Your task to perform on an android device: see sites visited before in the chrome app Image 0: 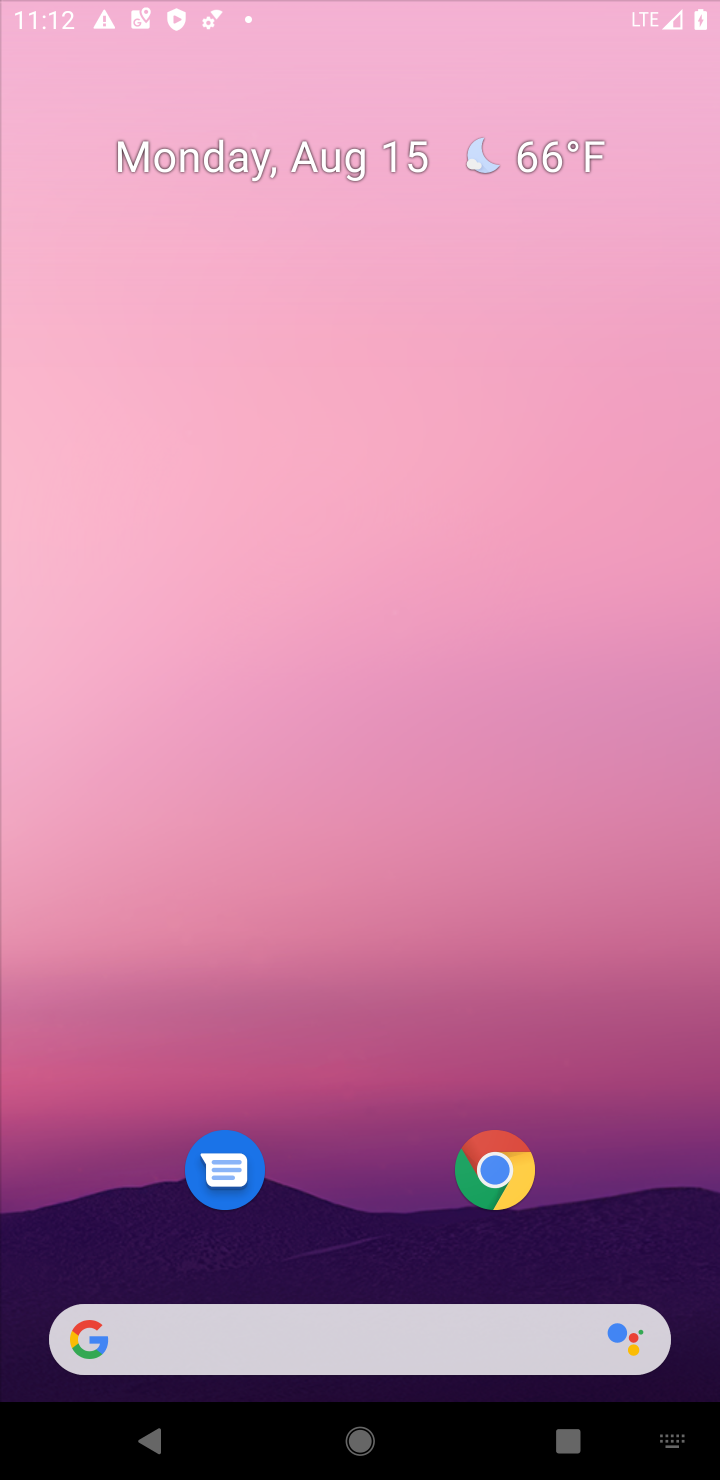
Step 0: press home button
Your task to perform on an android device: see sites visited before in the chrome app Image 1: 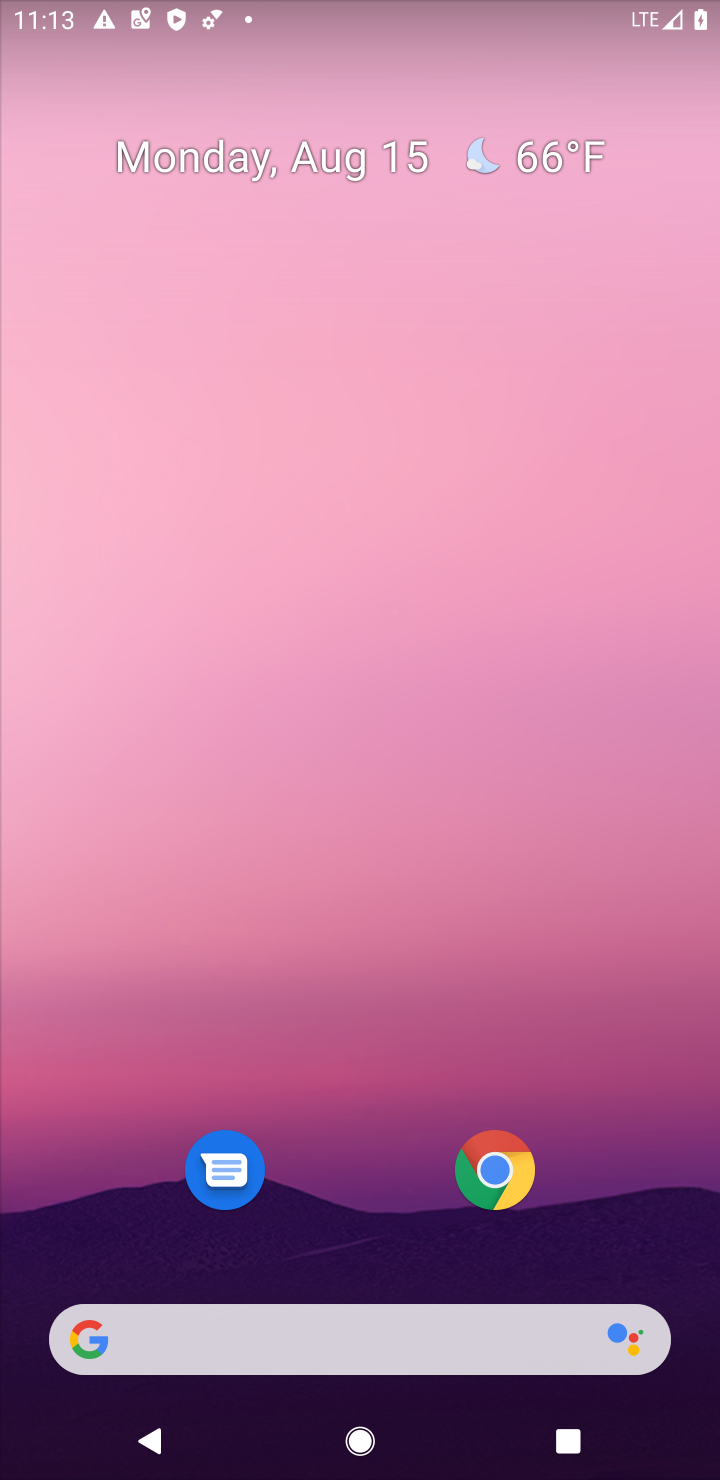
Step 1: drag from (396, 1265) to (549, 5)
Your task to perform on an android device: see sites visited before in the chrome app Image 2: 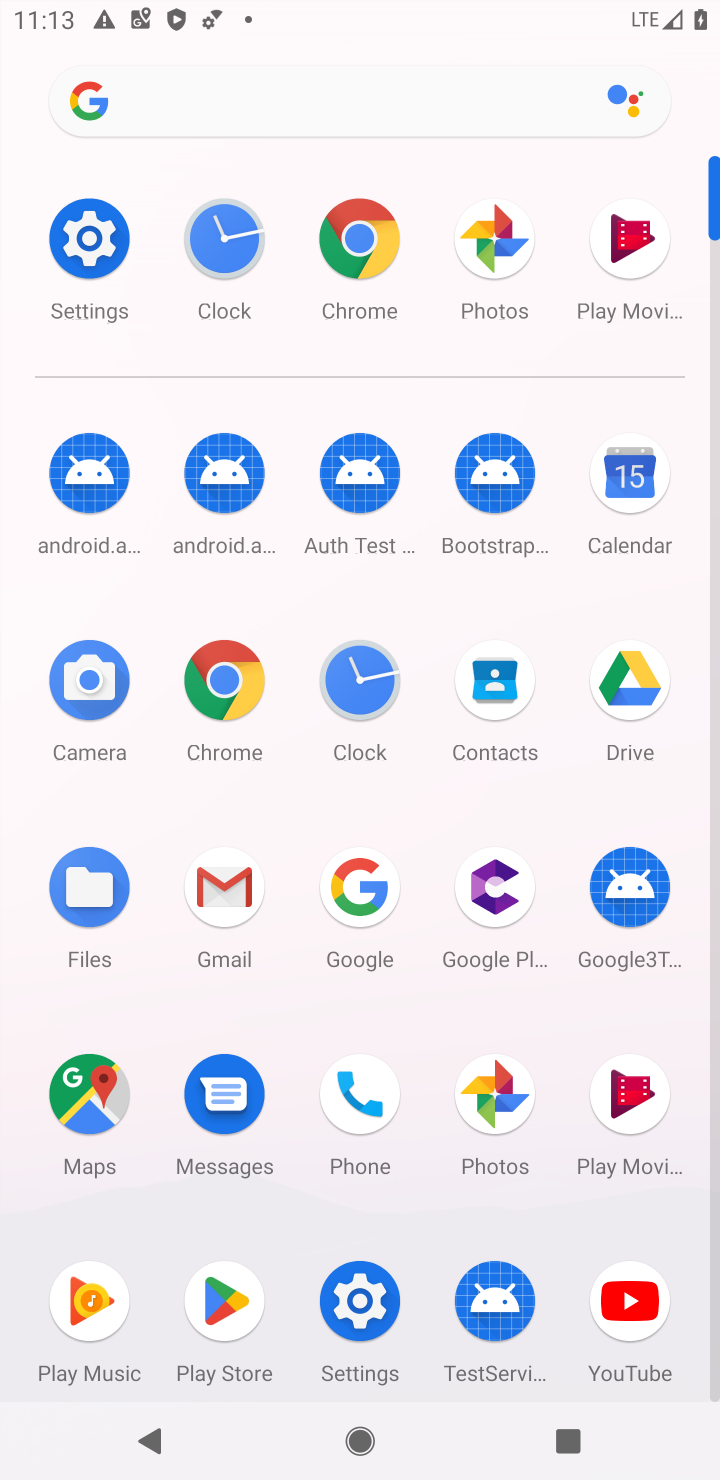
Step 2: click (354, 227)
Your task to perform on an android device: see sites visited before in the chrome app Image 3: 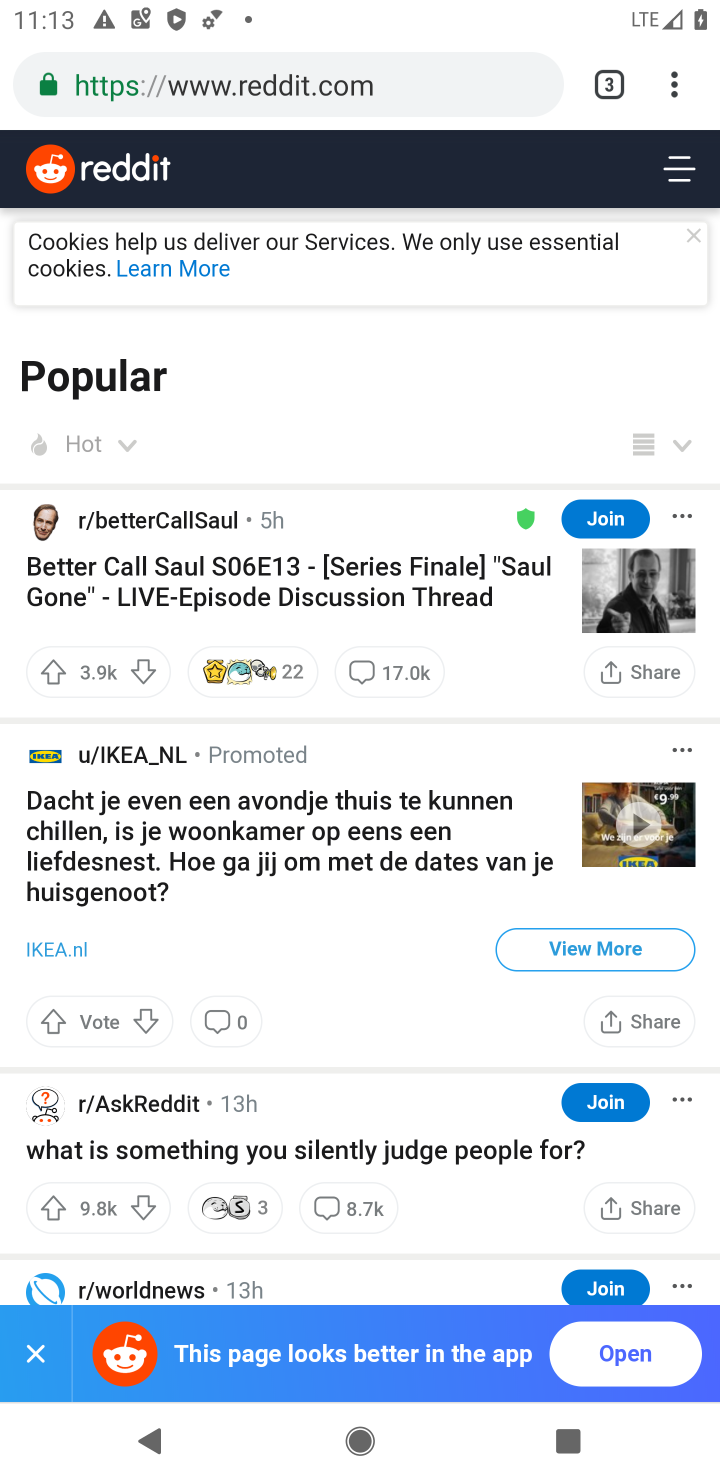
Step 3: click (683, 82)
Your task to perform on an android device: see sites visited before in the chrome app Image 4: 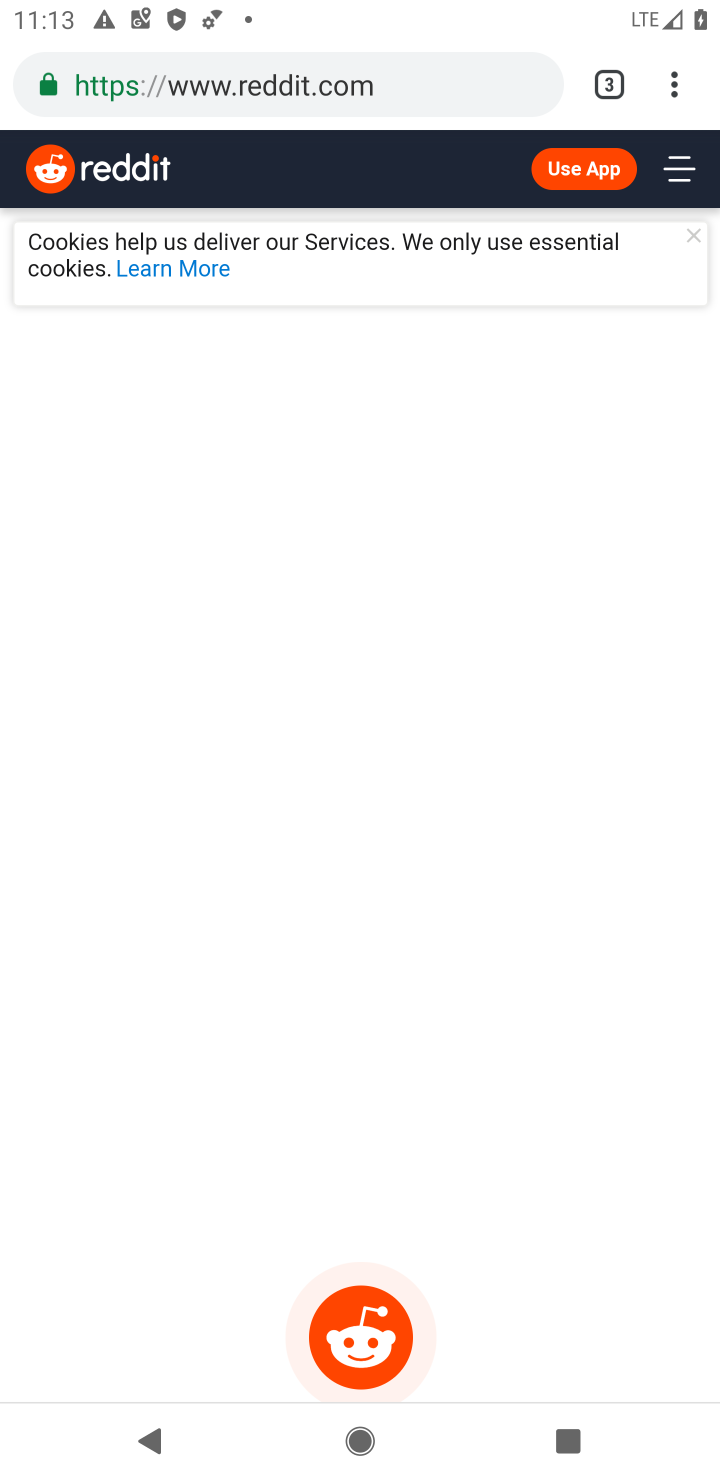
Step 4: click (670, 81)
Your task to perform on an android device: see sites visited before in the chrome app Image 5: 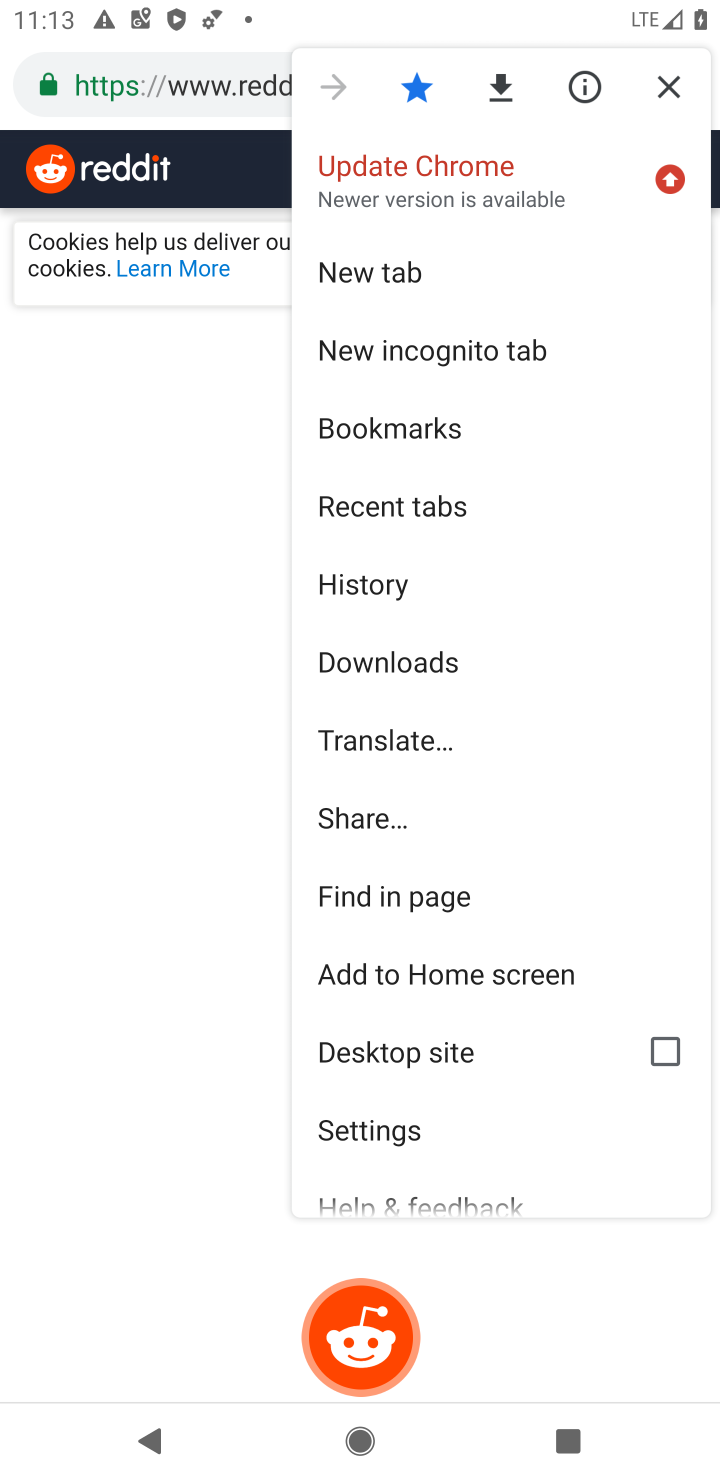
Step 5: click (414, 584)
Your task to perform on an android device: see sites visited before in the chrome app Image 6: 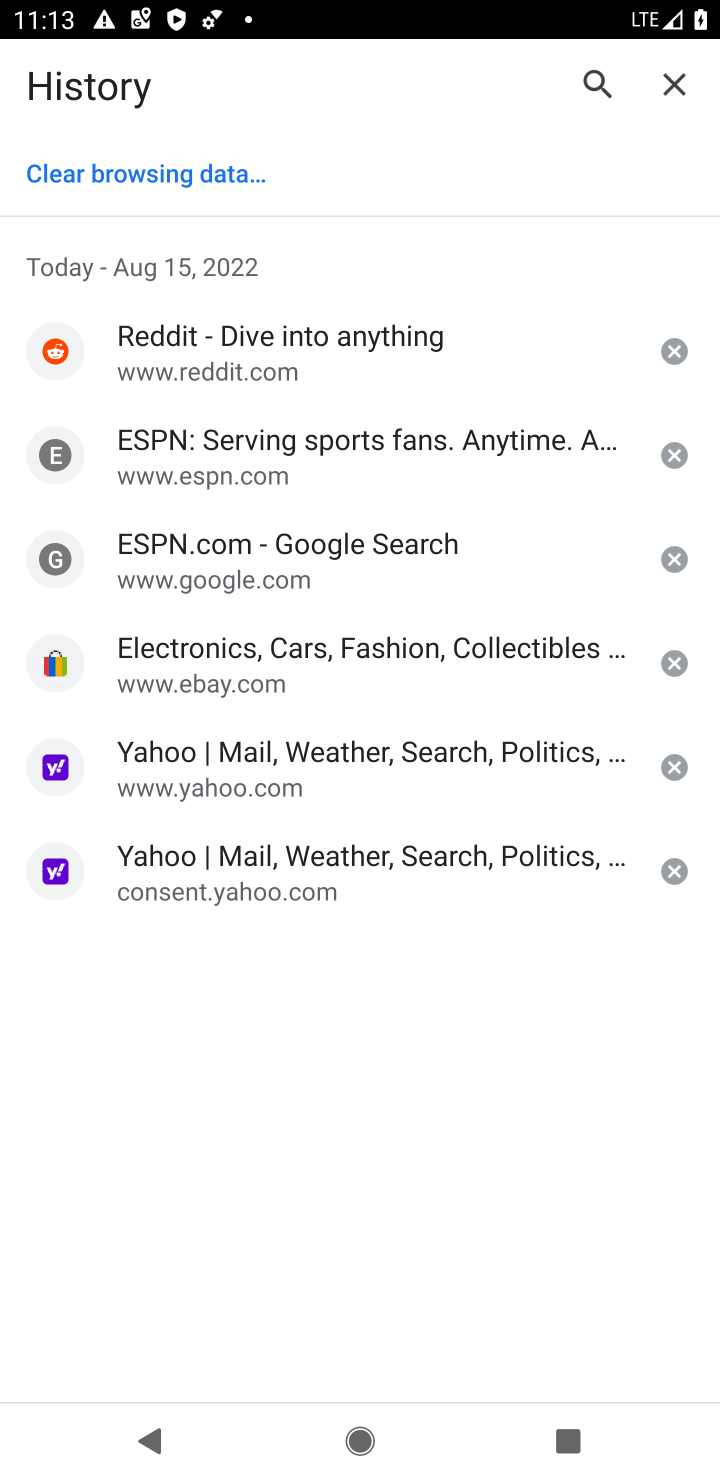
Step 6: task complete